Your task to perform on an android device: What's the news today? Image 0: 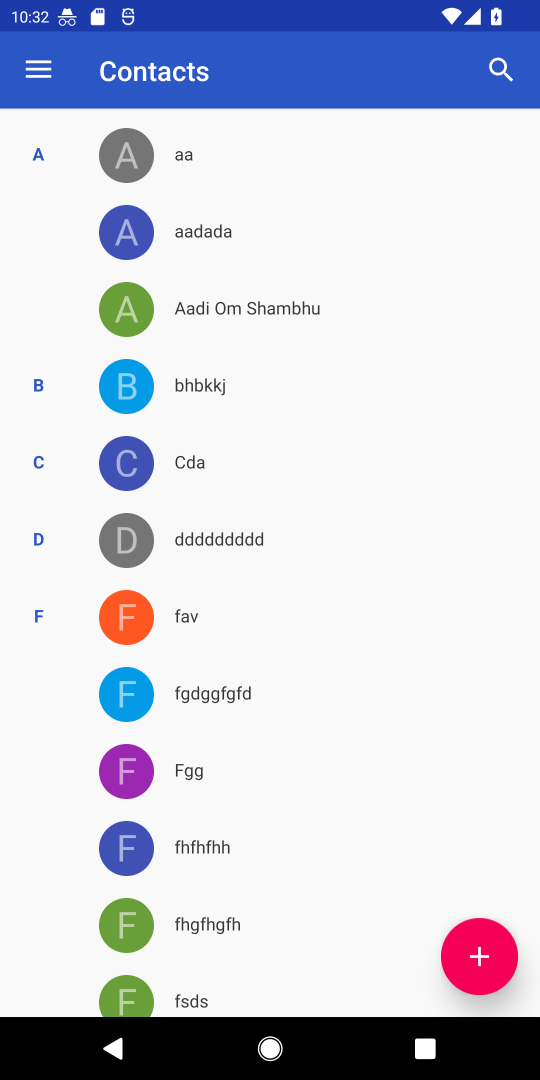
Step 0: press home button
Your task to perform on an android device: What's the news today? Image 1: 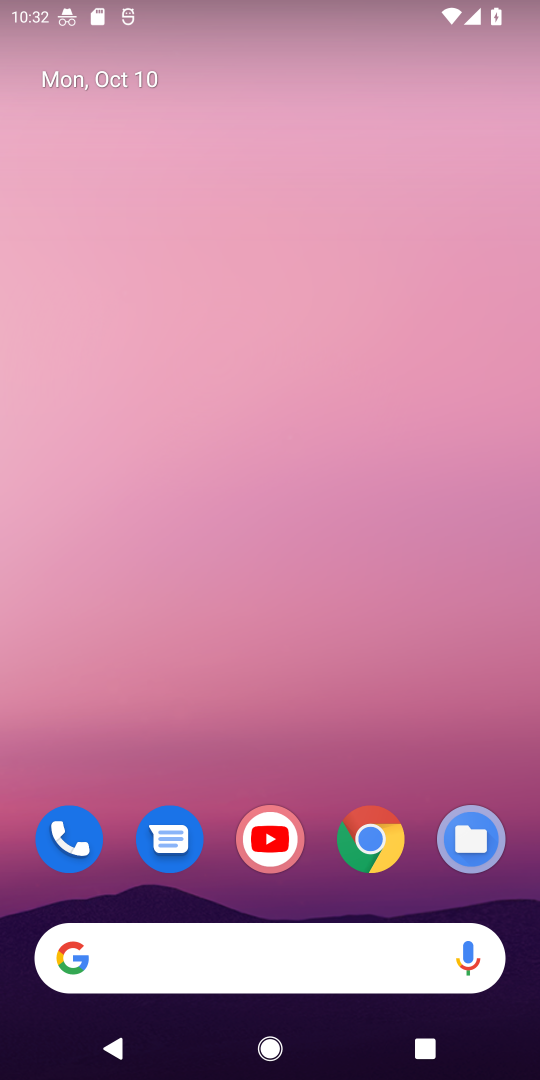
Step 1: drag from (229, 892) to (261, 64)
Your task to perform on an android device: What's the news today? Image 2: 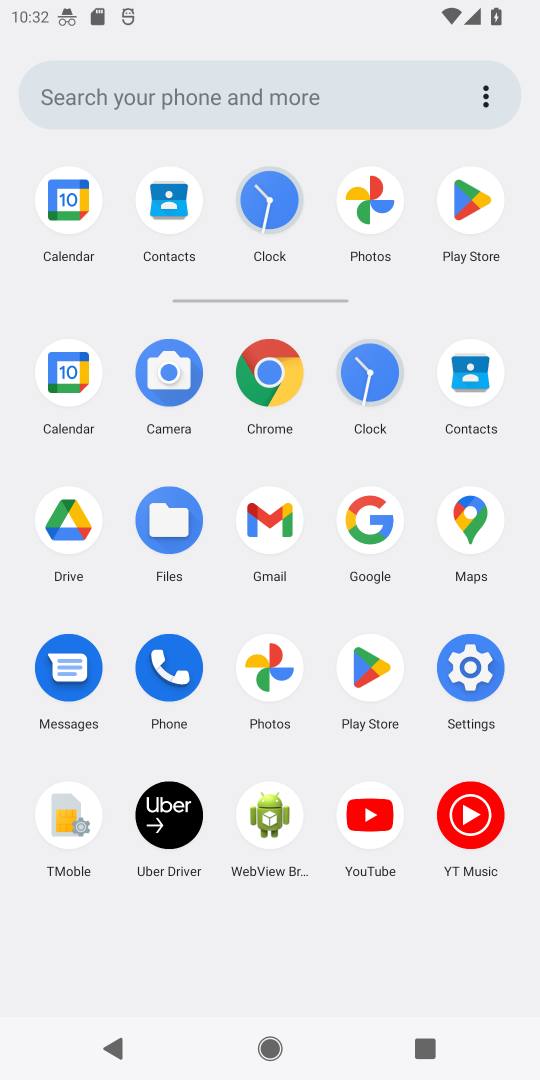
Step 2: click (267, 372)
Your task to perform on an android device: What's the news today? Image 3: 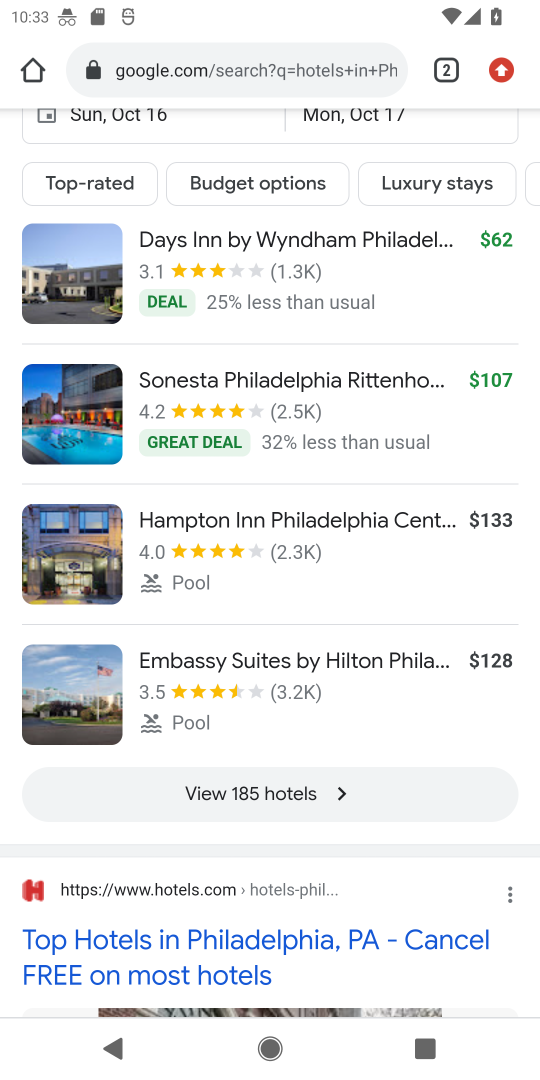
Step 3: click (254, 71)
Your task to perform on an android device: What's the news today? Image 4: 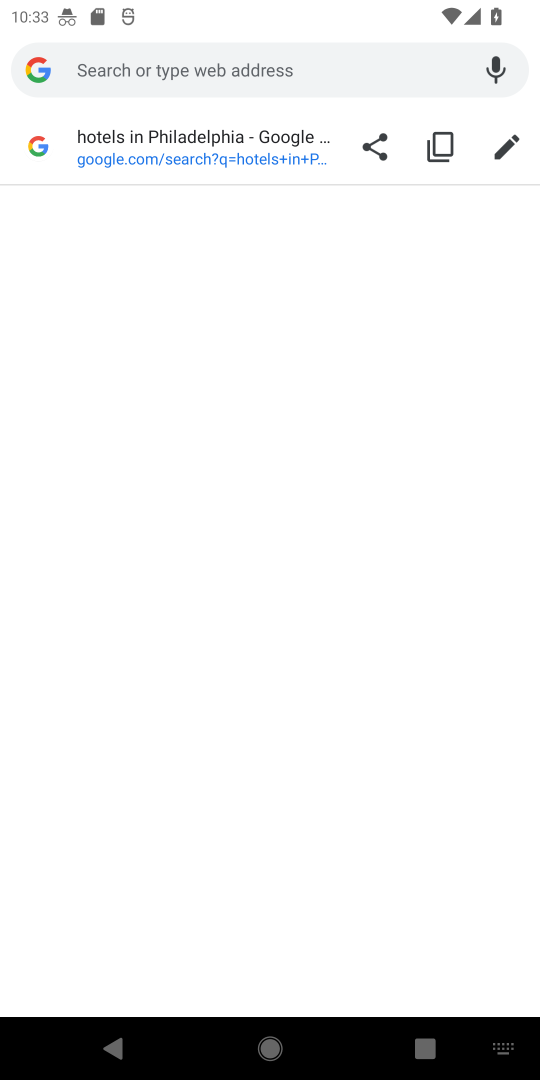
Step 4: type "What's the news today?"
Your task to perform on an android device: What's the news today? Image 5: 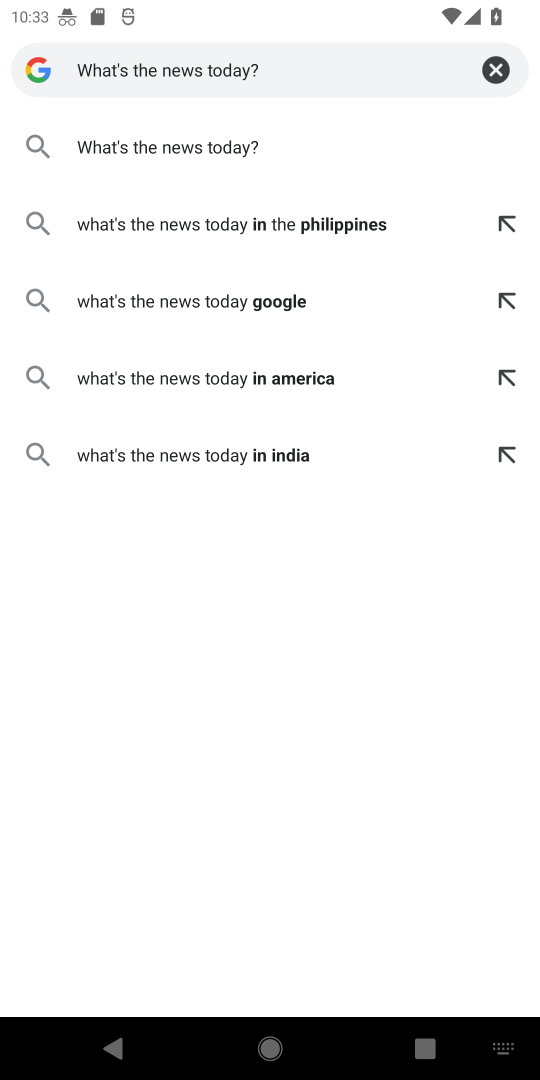
Step 5: press enter
Your task to perform on an android device: What's the news today? Image 6: 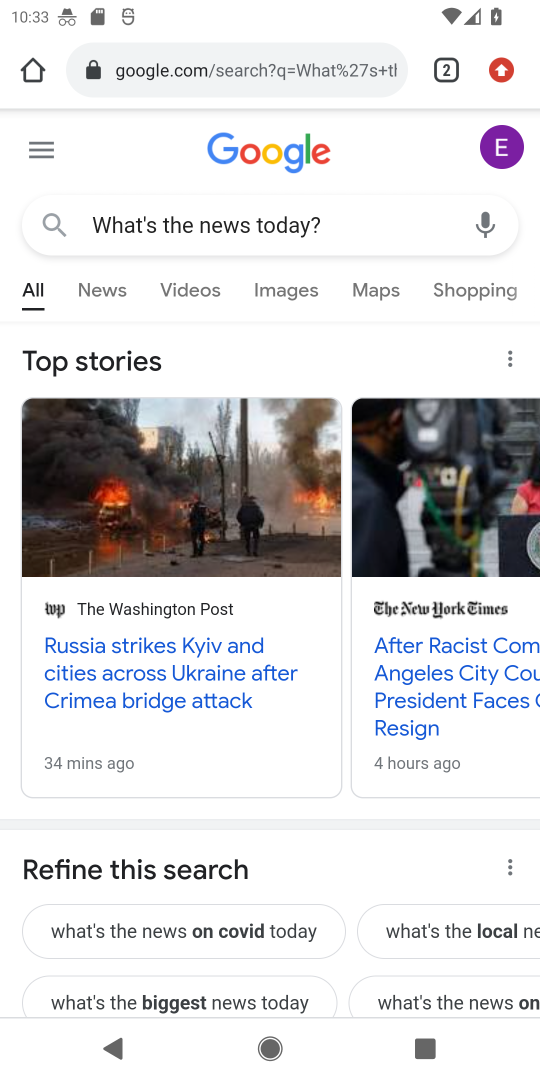
Step 6: drag from (224, 820) to (319, 219)
Your task to perform on an android device: What's the news today? Image 7: 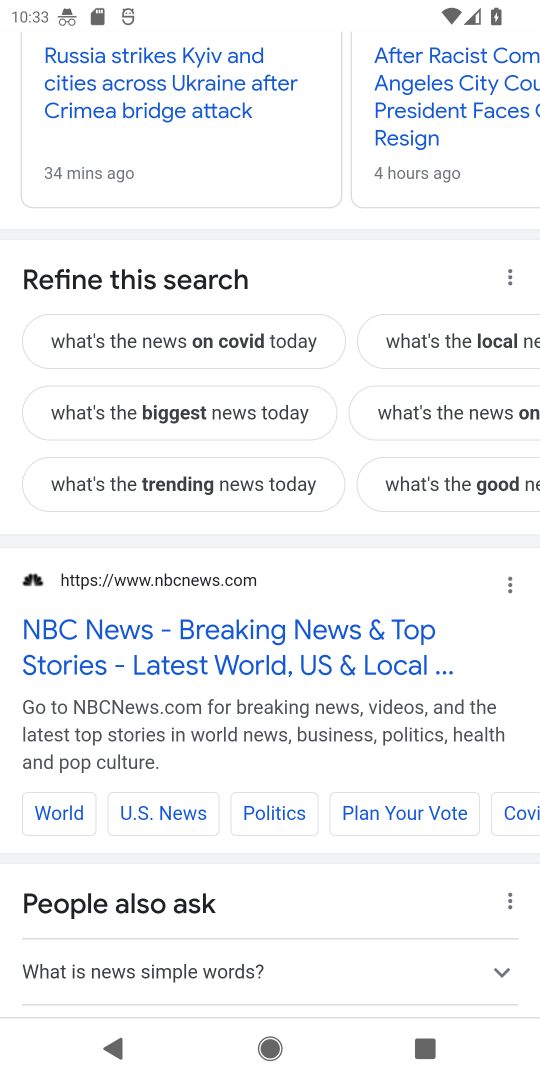
Step 7: click (239, 630)
Your task to perform on an android device: What's the news today? Image 8: 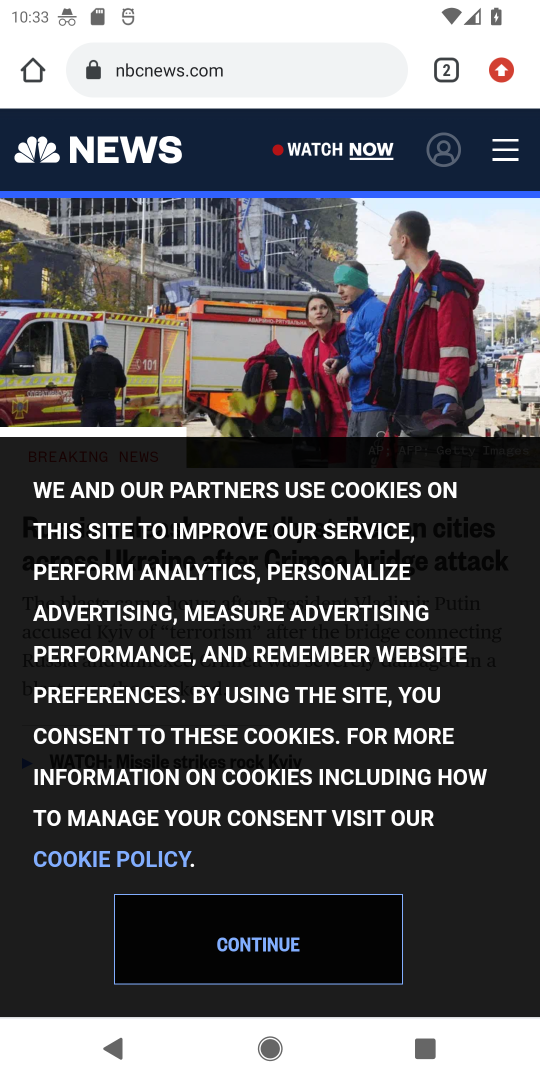
Step 8: task complete